Your task to perform on an android device: toggle translation in the chrome app Image 0: 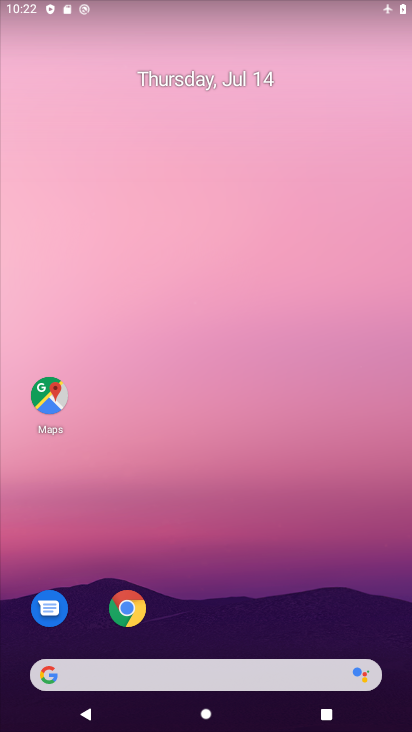
Step 0: click (123, 605)
Your task to perform on an android device: toggle translation in the chrome app Image 1: 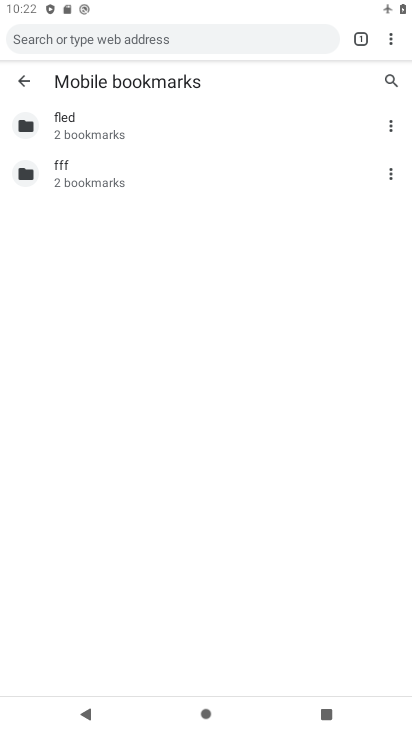
Step 1: click (389, 34)
Your task to perform on an android device: toggle translation in the chrome app Image 2: 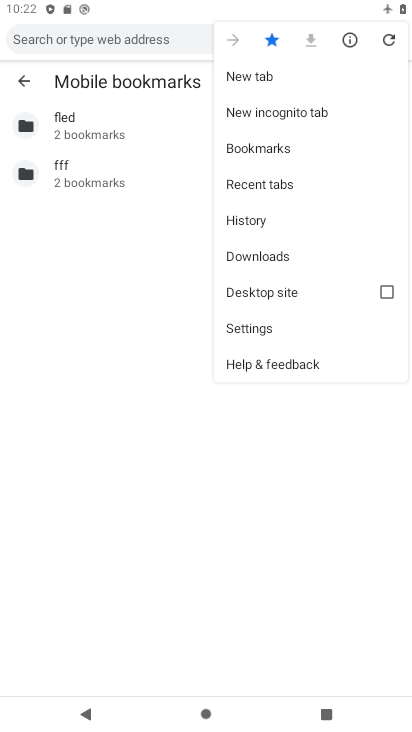
Step 2: click (258, 328)
Your task to perform on an android device: toggle translation in the chrome app Image 3: 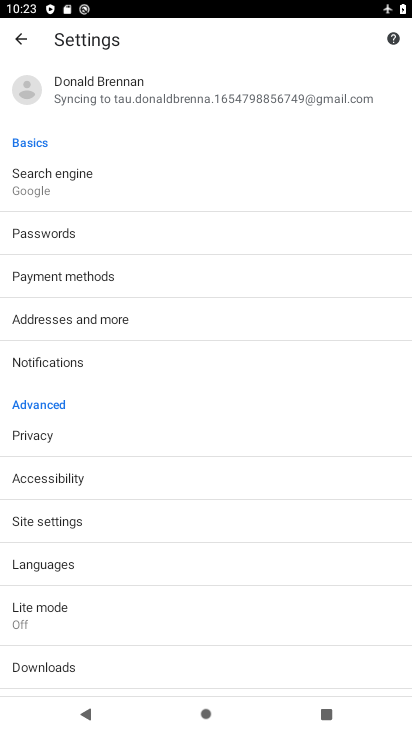
Step 3: click (56, 570)
Your task to perform on an android device: toggle translation in the chrome app Image 4: 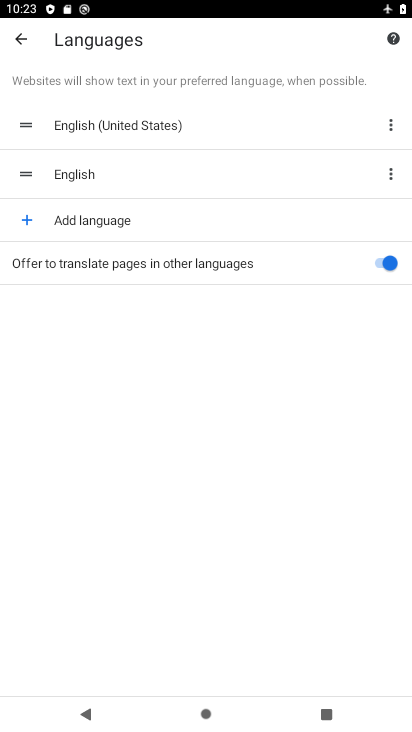
Step 4: click (364, 268)
Your task to perform on an android device: toggle translation in the chrome app Image 5: 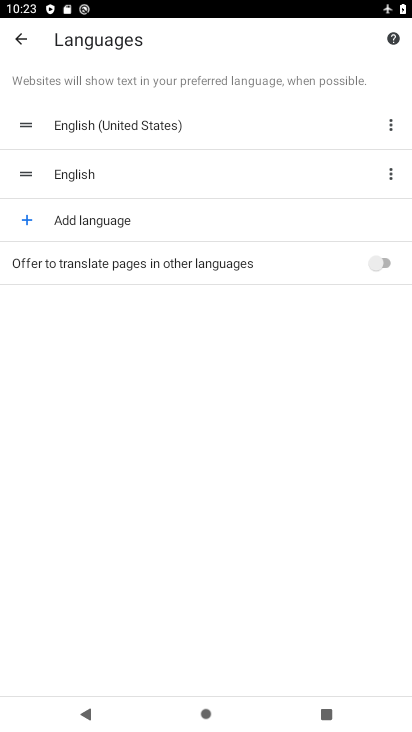
Step 5: task complete